Your task to perform on an android device: empty trash in the gmail app Image 0: 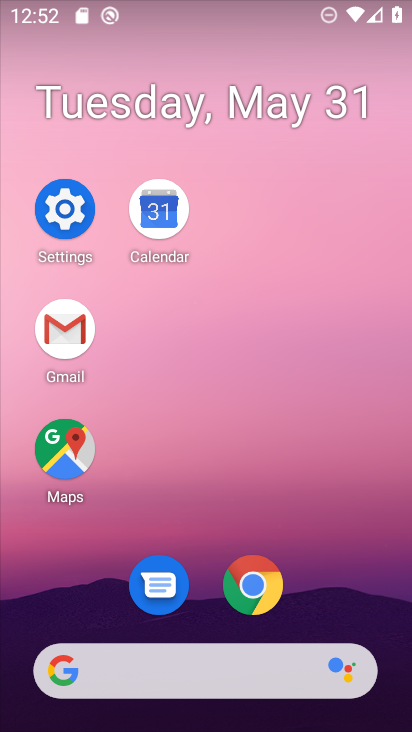
Step 0: click (59, 339)
Your task to perform on an android device: empty trash in the gmail app Image 1: 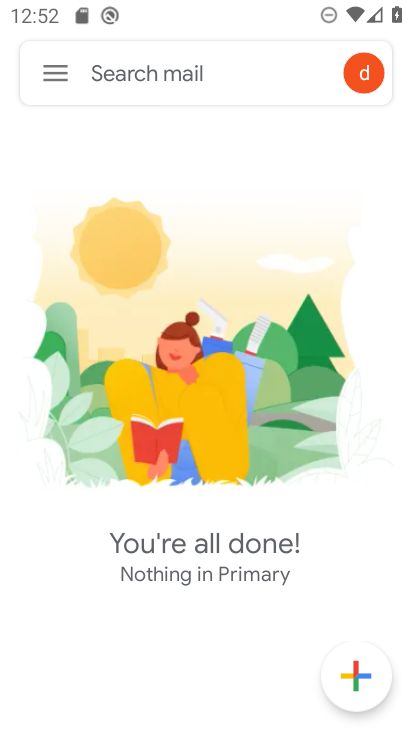
Step 1: click (57, 91)
Your task to perform on an android device: empty trash in the gmail app Image 2: 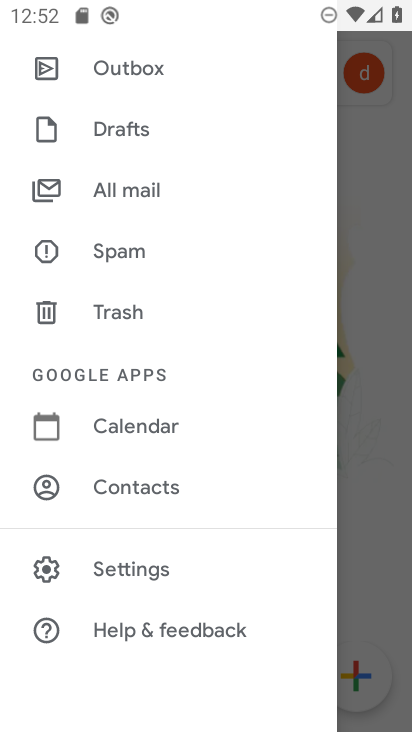
Step 2: click (147, 306)
Your task to perform on an android device: empty trash in the gmail app Image 3: 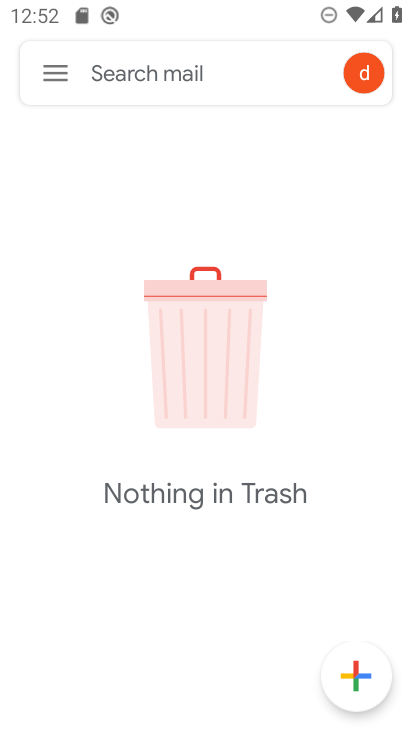
Step 3: task complete